Your task to perform on an android device: Open calendar and show me the fourth week of next month Image 0: 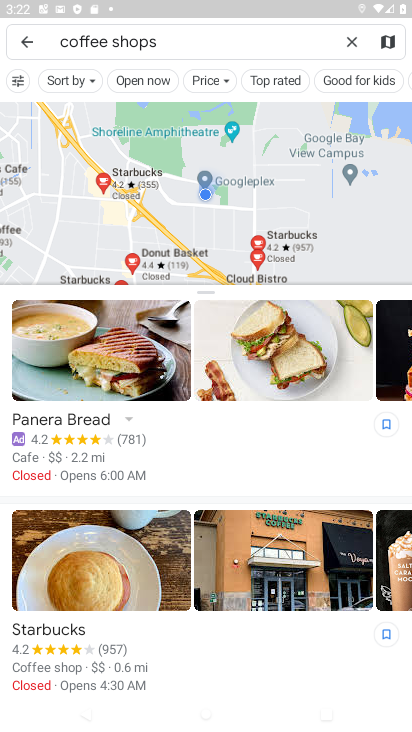
Step 0: press home button
Your task to perform on an android device: Open calendar and show me the fourth week of next month Image 1: 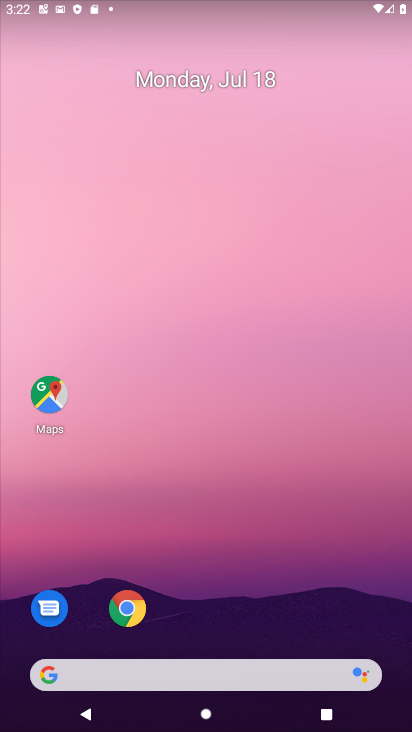
Step 1: drag from (270, 648) to (312, 95)
Your task to perform on an android device: Open calendar and show me the fourth week of next month Image 2: 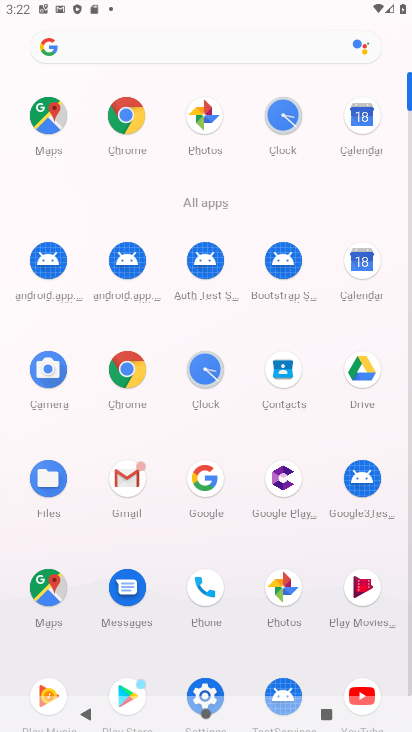
Step 2: click (366, 270)
Your task to perform on an android device: Open calendar and show me the fourth week of next month Image 3: 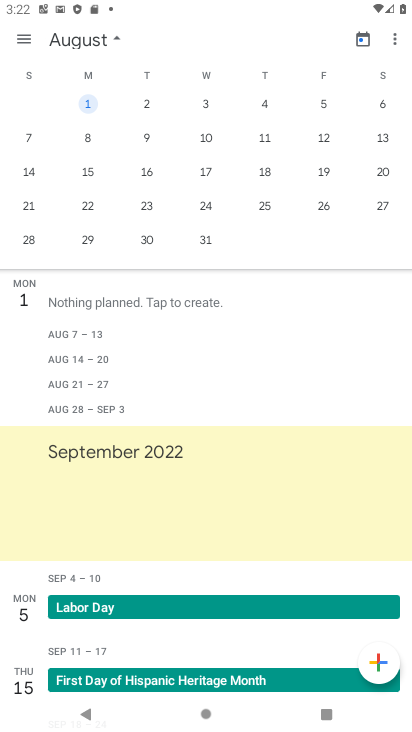
Step 3: click (89, 217)
Your task to perform on an android device: Open calendar and show me the fourth week of next month Image 4: 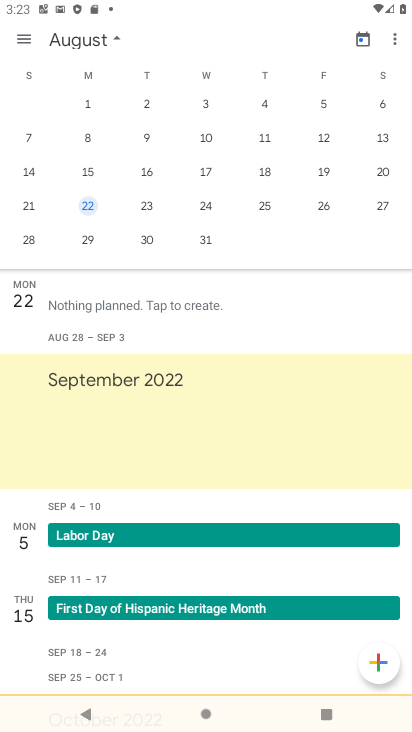
Step 4: task complete